Your task to perform on an android device: find photos in the google photos app Image 0: 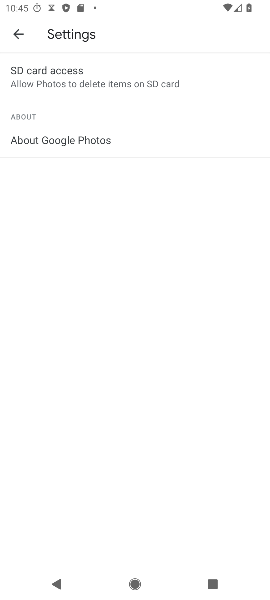
Step 0: press home button
Your task to perform on an android device: find photos in the google photos app Image 1: 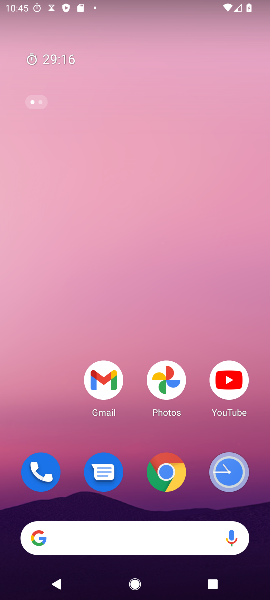
Step 1: drag from (133, 334) to (37, 30)
Your task to perform on an android device: find photos in the google photos app Image 2: 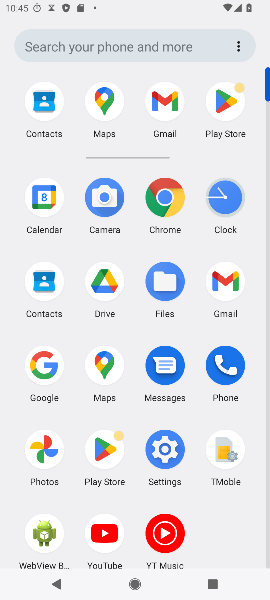
Step 2: click (48, 463)
Your task to perform on an android device: find photos in the google photos app Image 3: 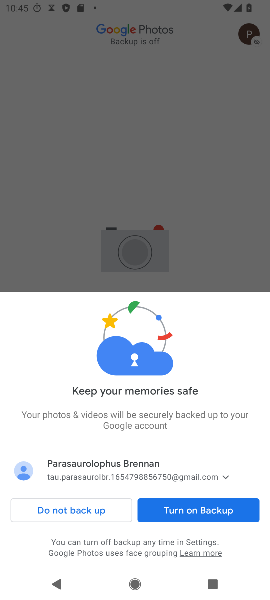
Step 3: click (174, 510)
Your task to perform on an android device: find photos in the google photos app Image 4: 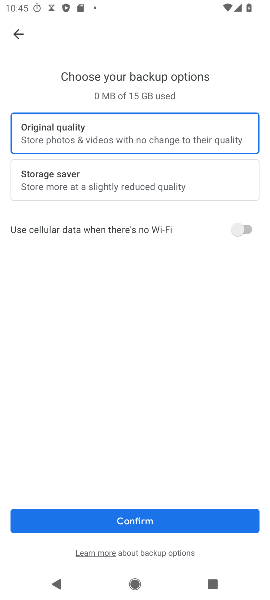
Step 4: click (173, 514)
Your task to perform on an android device: find photos in the google photos app Image 5: 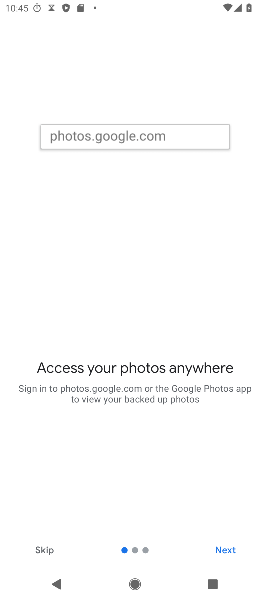
Step 5: click (51, 545)
Your task to perform on an android device: find photos in the google photos app Image 6: 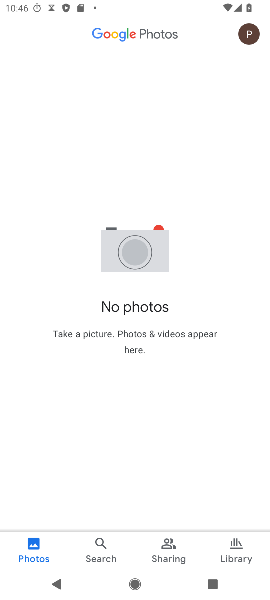
Step 6: task complete